Your task to perform on an android device: turn pop-ups on in chrome Image 0: 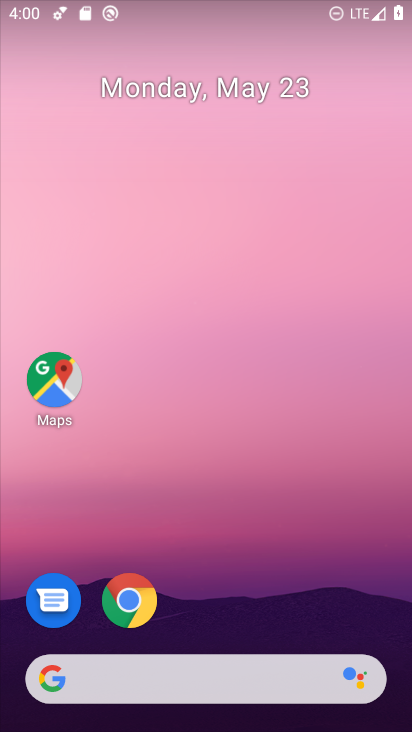
Step 0: click (137, 602)
Your task to perform on an android device: turn pop-ups on in chrome Image 1: 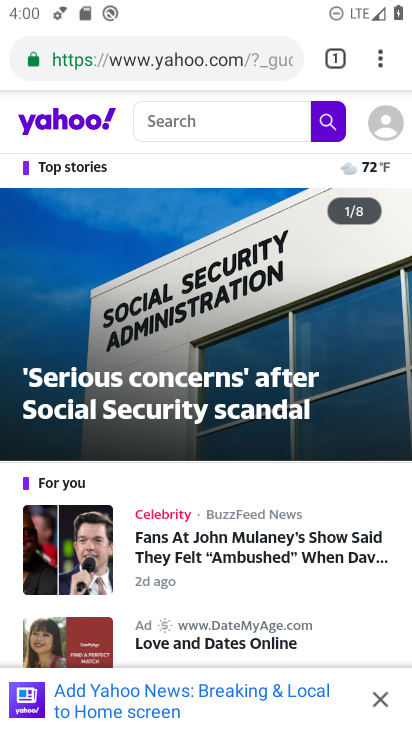
Step 1: click (380, 62)
Your task to perform on an android device: turn pop-ups on in chrome Image 2: 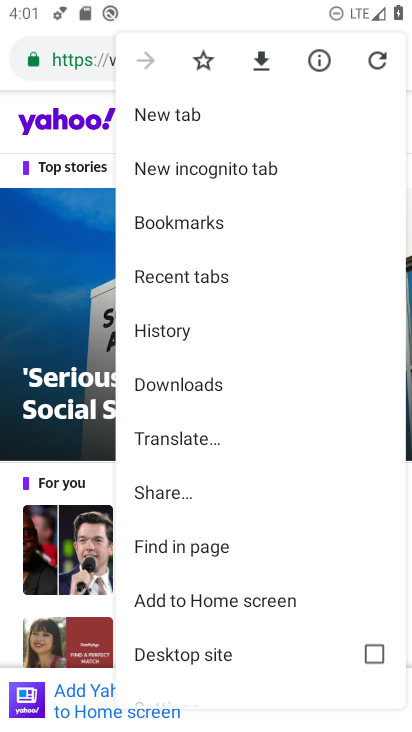
Step 2: drag from (282, 635) to (315, 347)
Your task to perform on an android device: turn pop-ups on in chrome Image 3: 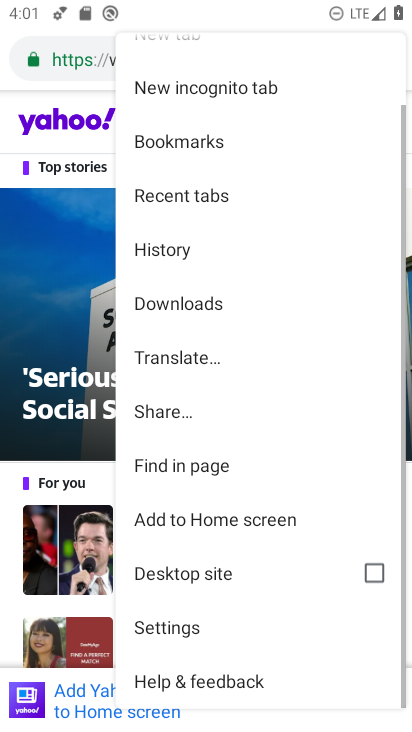
Step 3: click (173, 630)
Your task to perform on an android device: turn pop-ups on in chrome Image 4: 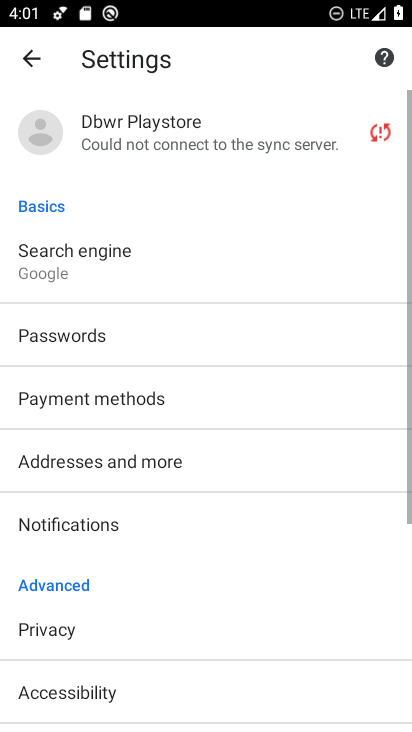
Step 4: drag from (195, 614) to (231, 357)
Your task to perform on an android device: turn pop-ups on in chrome Image 5: 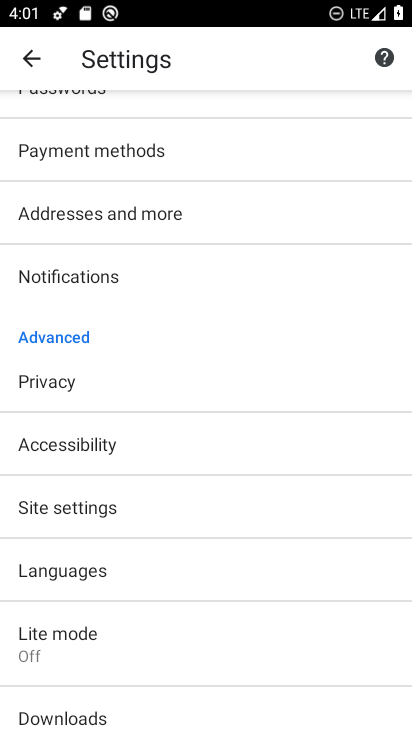
Step 5: click (88, 511)
Your task to perform on an android device: turn pop-ups on in chrome Image 6: 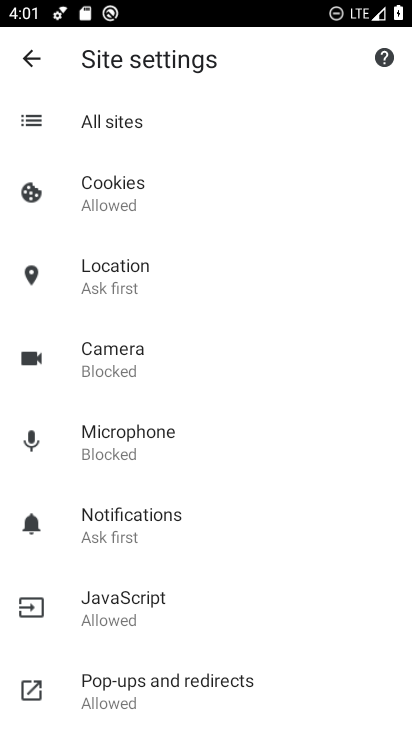
Step 6: drag from (268, 581) to (272, 297)
Your task to perform on an android device: turn pop-ups on in chrome Image 7: 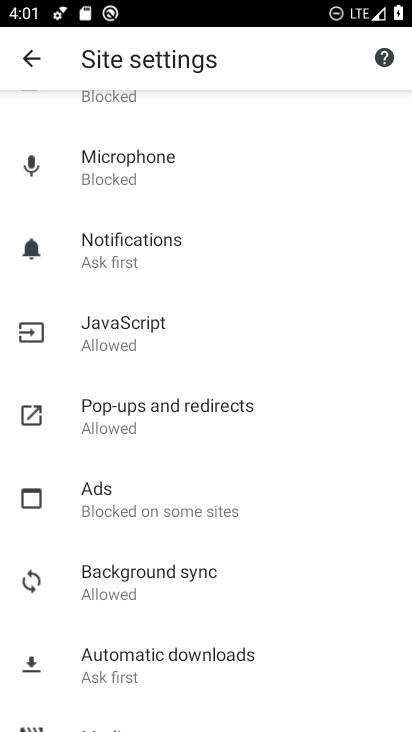
Step 7: click (96, 420)
Your task to perform on an android device: turn pop-ups on in chrome Image 8: 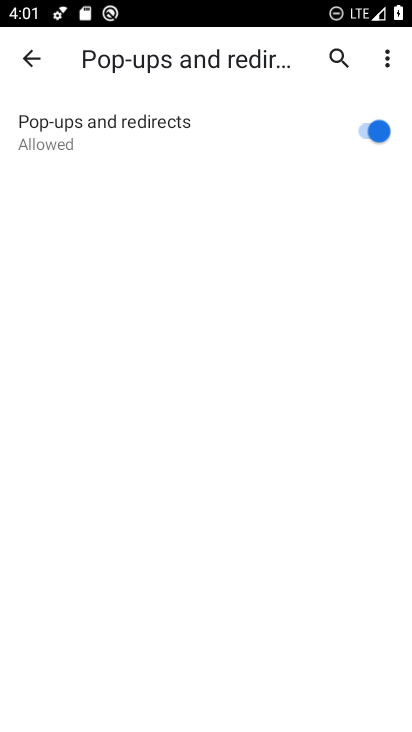
Step 8: task complete